Your task to perform on an android device: all mails in gmail Image 0: 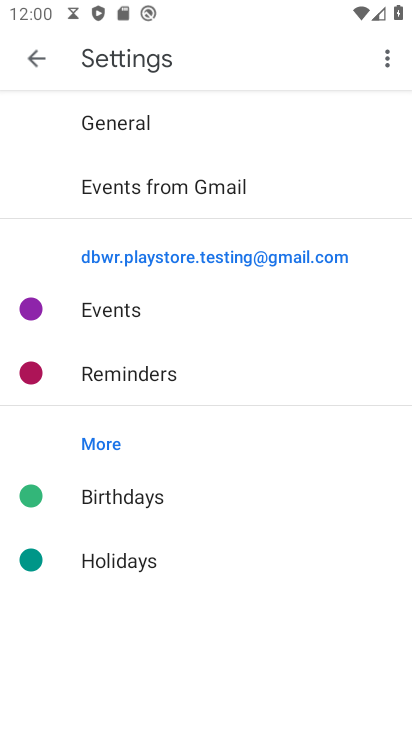
Step 0: press back button
Your task to perform on an android device: all mails in gmail Image 1: 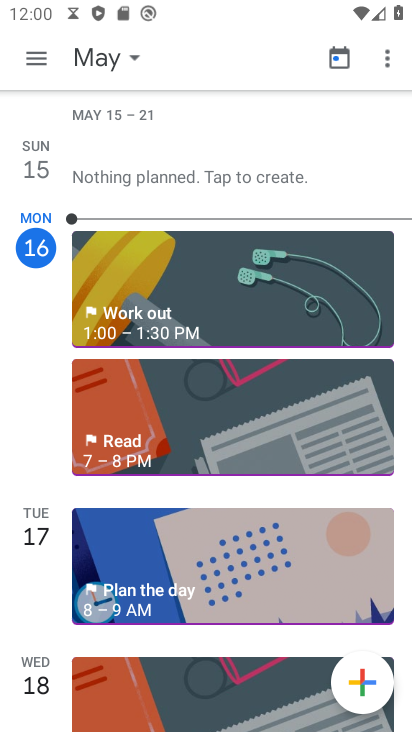
Step 1: press back button
Your task to perform on an android device: all mails in gmail Image 2: 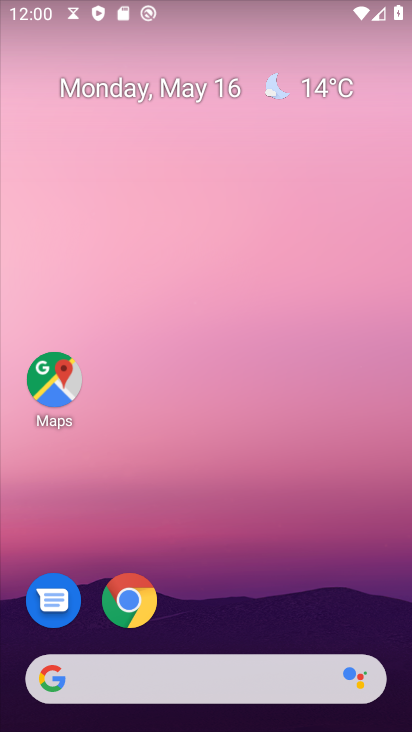
Step 2: drag from (263, 487) to (235, 37)
Your task to perform on an android device: all mails in gmail Image 3: 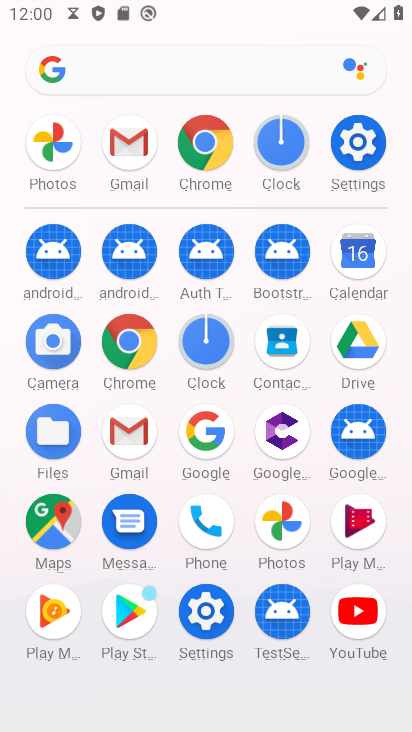
Step 3: click (125, 425)
Your task to perform on an android device: all mails in gmail Image 4: 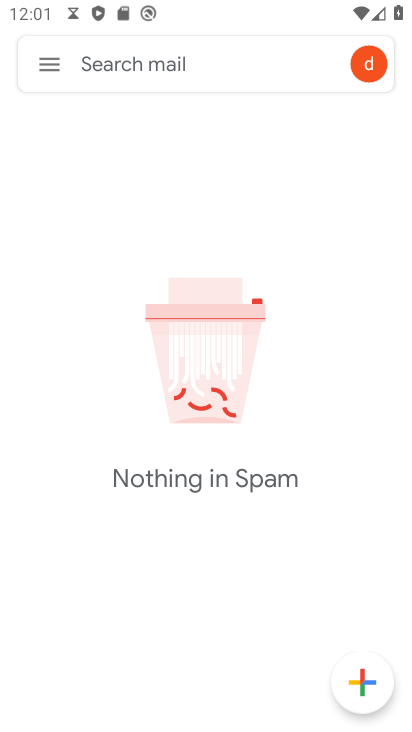
Step 4: click (43, 57)
Your task to perform on an android device: all mails in gmail Image 5: 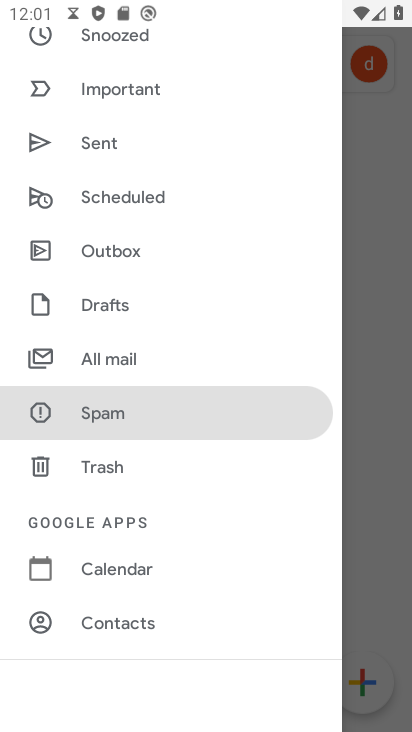
Step 5: click (142, 366)
Your task to perform on an android device: all mails in gmail Image 6: 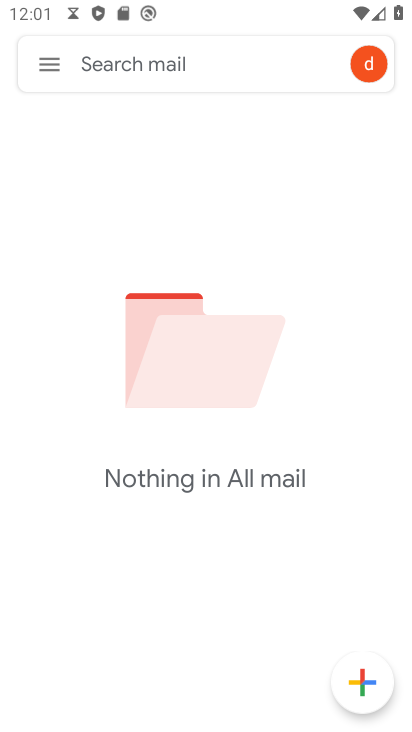
Step 6: click (46, 60)
Your task to perform on an android device: all mails in gmail Image 7: 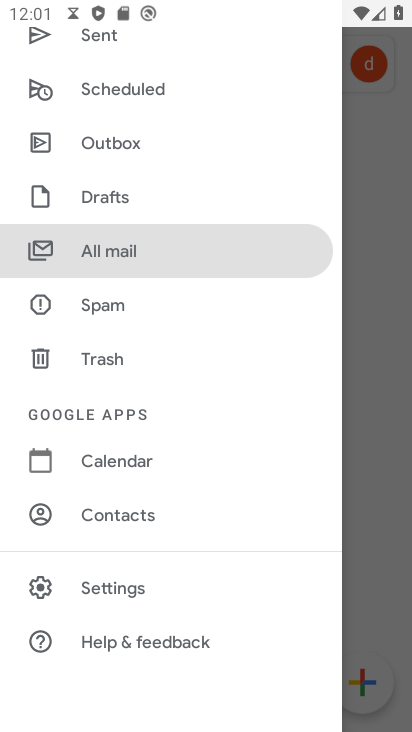
Step 7: click (186, 240)
Your task to perform on an android device: all mails in gmail Image 8: 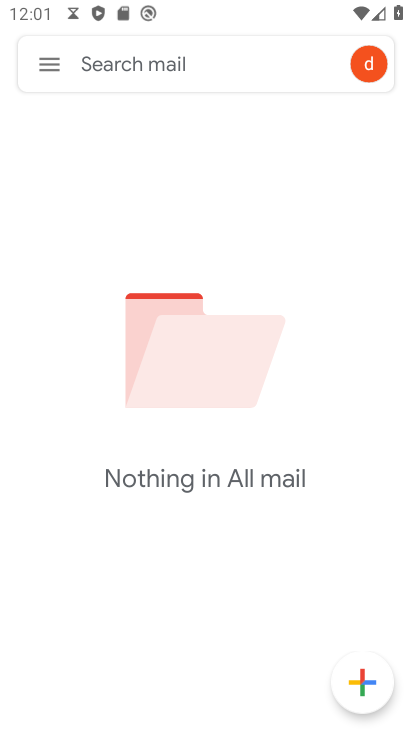
Step 8: task complete